Your task to perform on an android device: Open a new Chrome incognito tab Image 0: 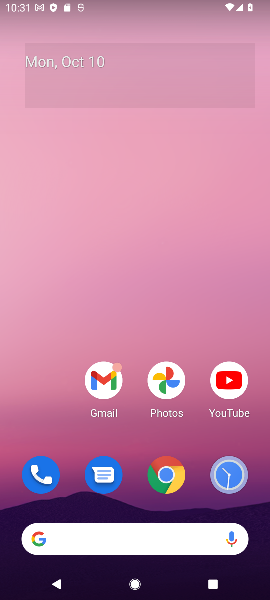
Step 0: click (173, 477)
Your task to perform on an android device: Open a new Chrome incognito tab Image 1: 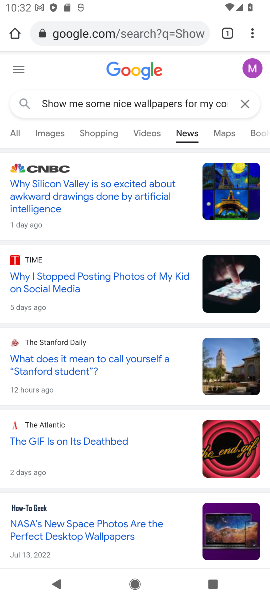
Step 1: click (255, 33)
Your task to perform on an android device: Open a new Chrome incognito tab Image 2: 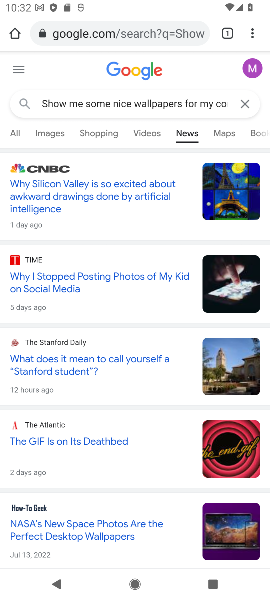
Step 2: task complete